Your task to perform on an android device: Open Google Chrome Image 0: 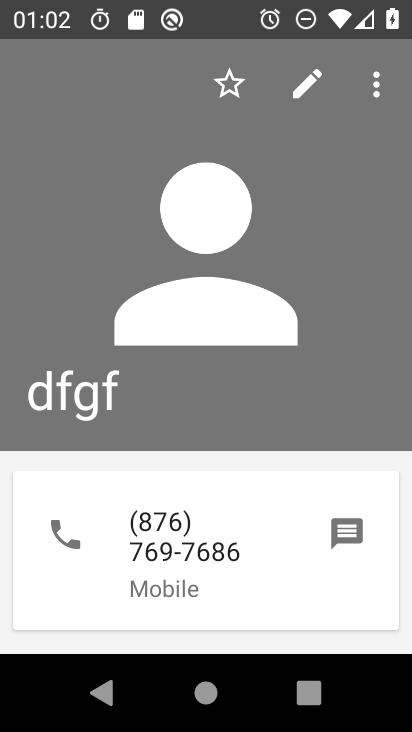
Step 0: press home button
Your task to perform on an android device: Open Google Chrome Image 1: 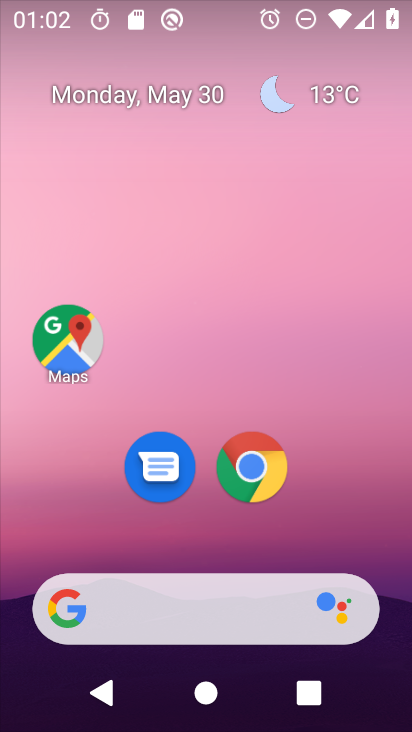
Step 1: click (265, 462)
Your task to perform on an android device: Open Google Chrome Image 2: 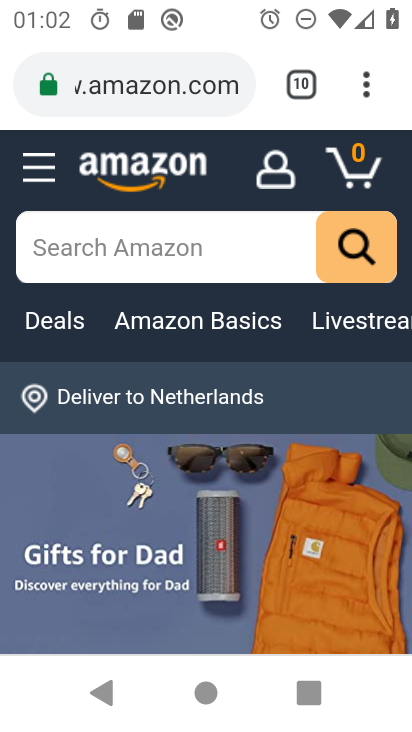
Step 2: task complete